Your task to perform on an android device: Search for seafood restaurants on Google Maps Image 0: 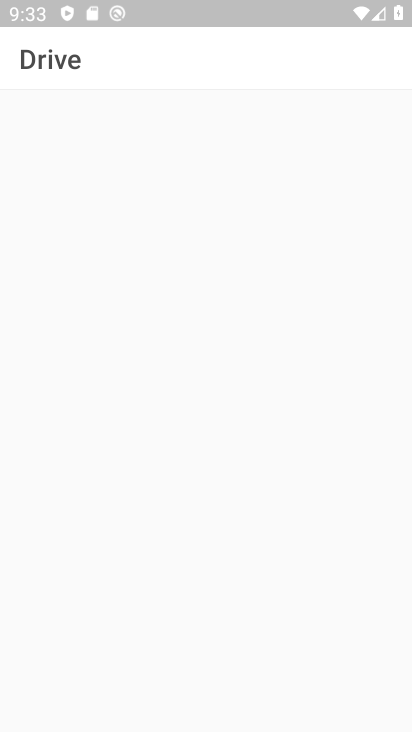
Step 0: drag from (257, 563) to (214, 39)
Your task to perform on an android device: Search for seafood restaurants on Google Maps Image 1: 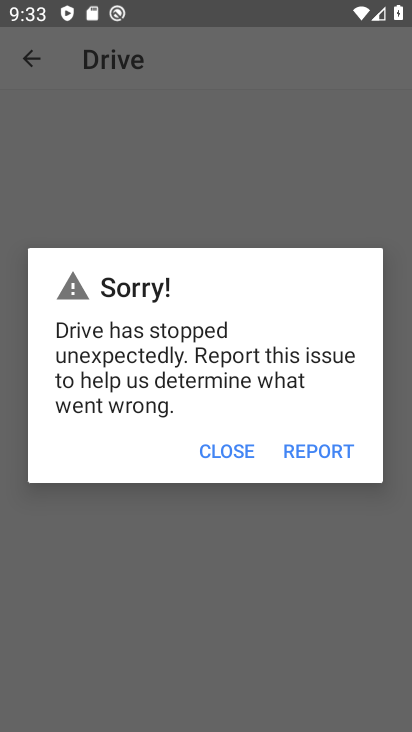
Step 1: press back button
Your task to perform on an android device: Search for seafood restaurants on Google Maps Image 2: 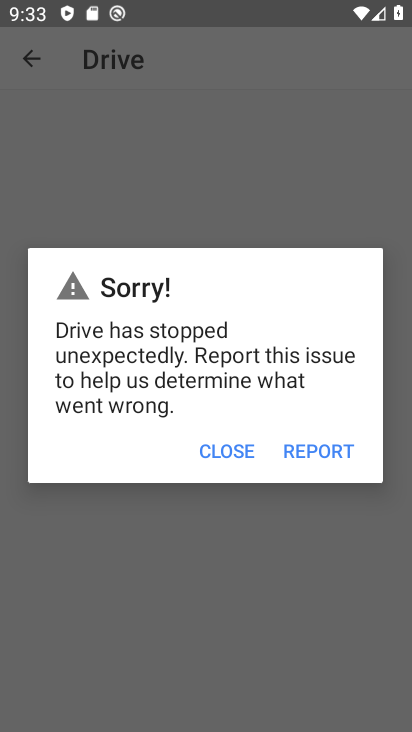
Step 2: press home button
Your task to perform on an android device: Search for seafood restaurants on Google Maps Image 3: 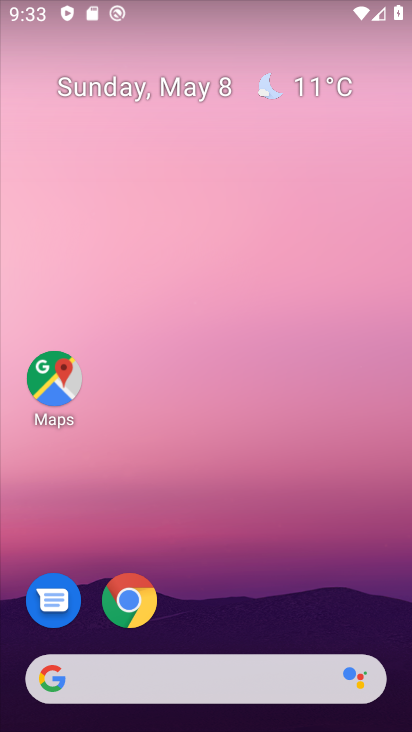
Step 3: drag from (258, 537) to (225, 7)
Your task to perform on an android device: Search for seafood restaurants on Google Maps Image 4: 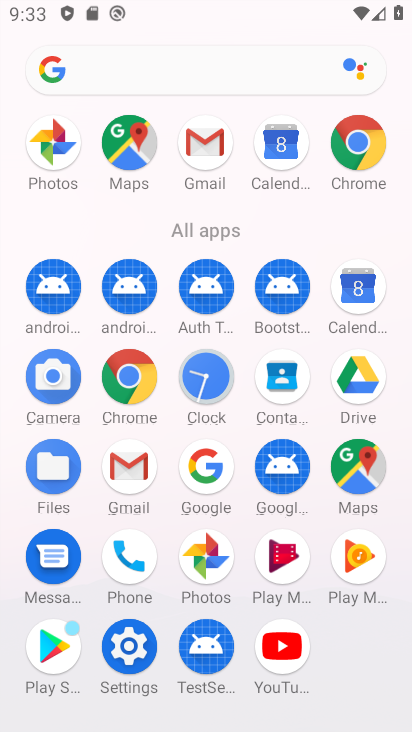
Step 4: click (358, 465)
Your task to perform on an android device: Search for seafood restaurants on Google Maps Image 5: 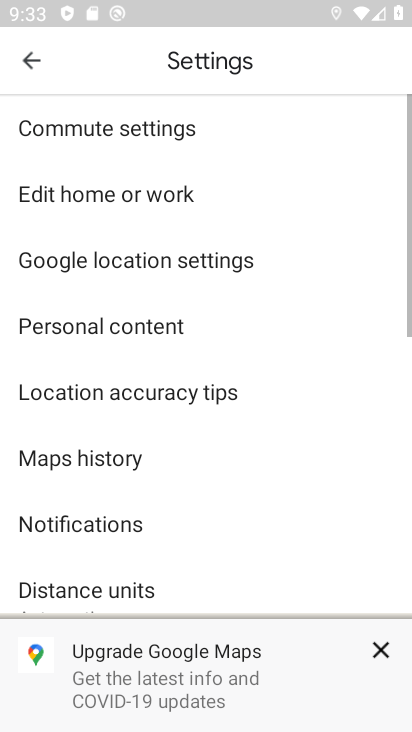
Step 5: click (40, 72)
Your task to perform on an android device: Search for seafood restaurants on Google Maps Image 6: 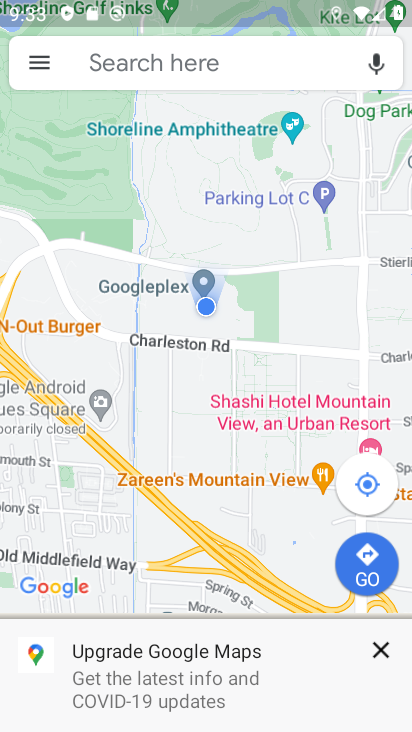
Step 6: click (233, 63)
Your task to perform on an android device: Search for seafood restaurants on Google Maps Image 7: 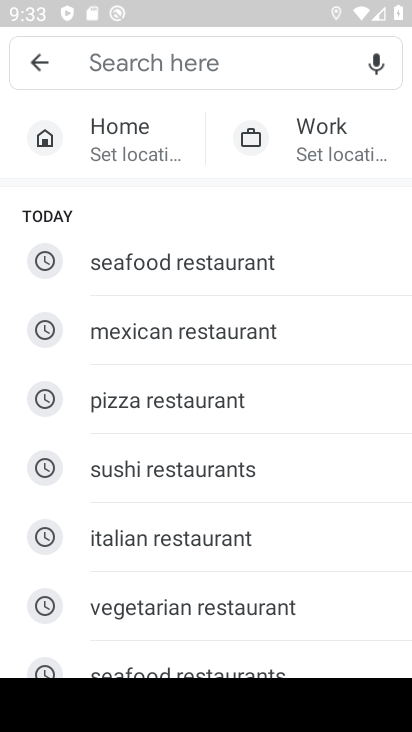
Step 7: click (186, 269)
Your task to perform on an android device: Search for seafood restaurants on Google Maps Image 8: 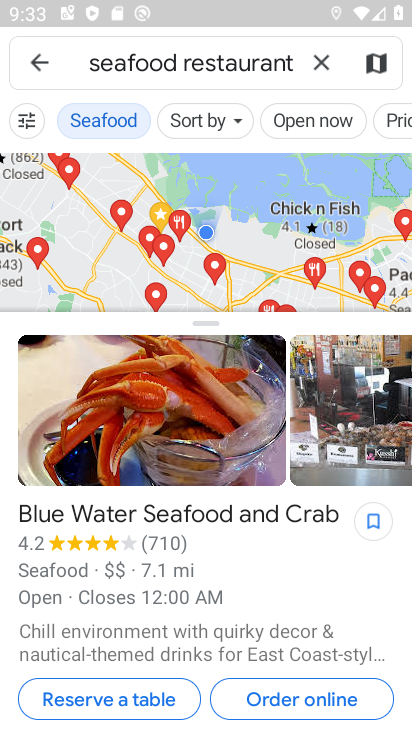
Step 8: task complete